Your task to perform on an android device: open app "Google Sheets" Image 0: 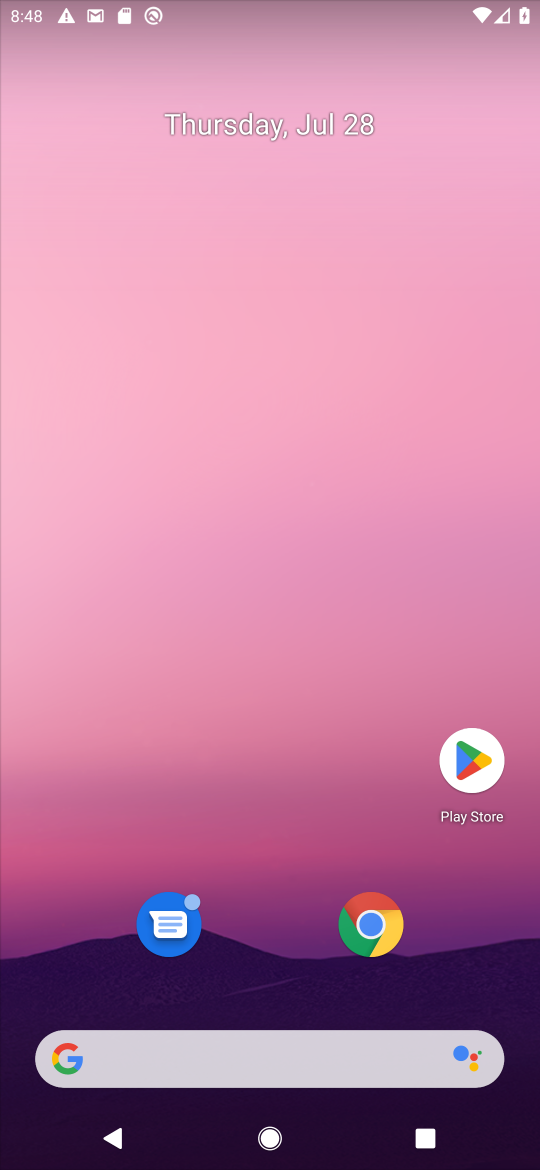
Step 0: press home button
Your task to perform on an android device: open app "Google Sheets" Image 1: 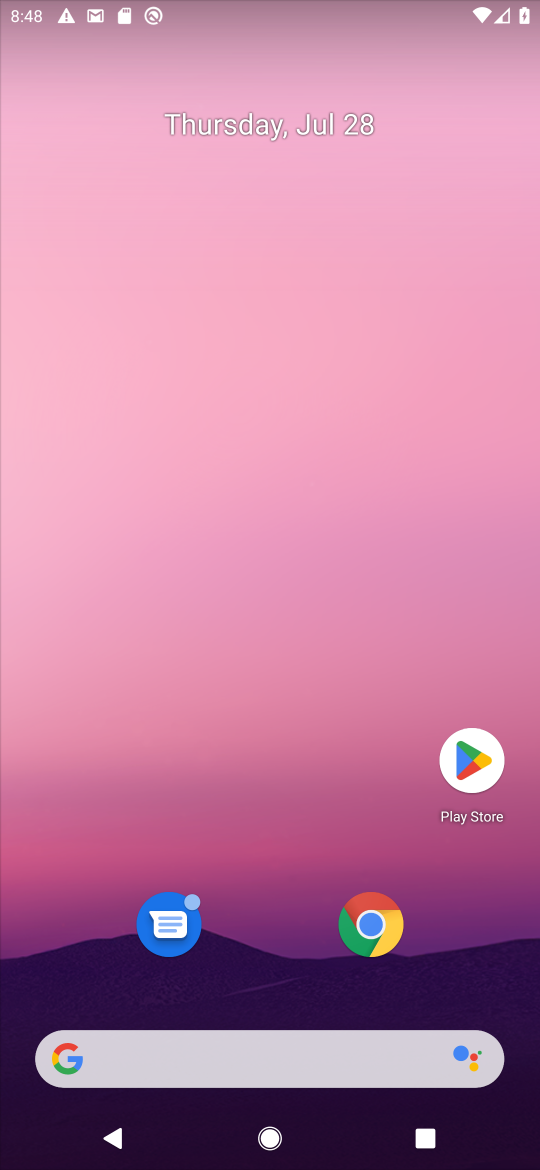
Step 1: click (468, 755)
Your task to perform on an android device: open app "Google Sheets" Image 2: 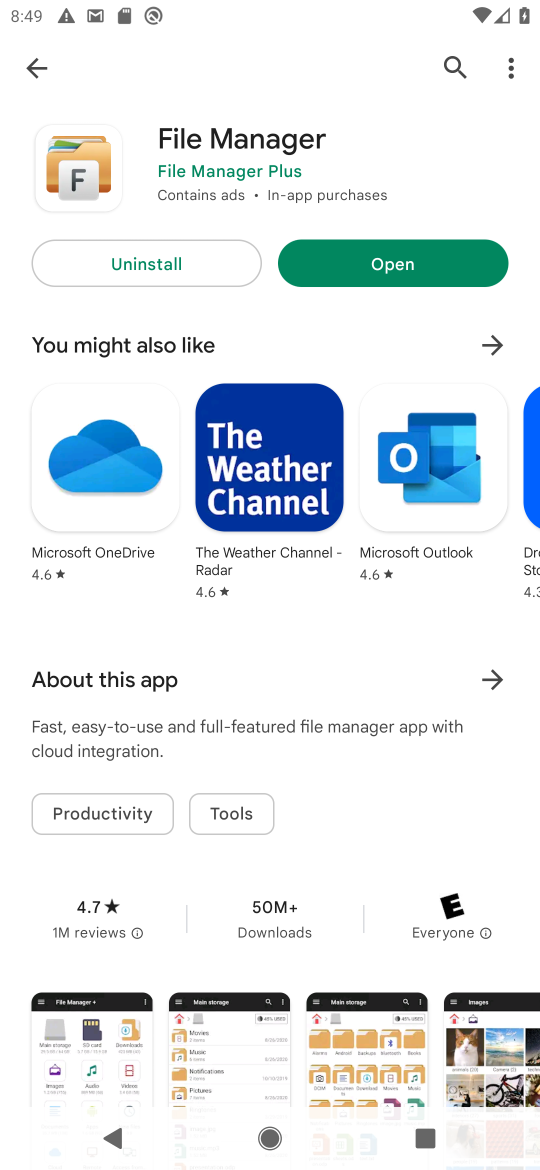
Step 2: click (448, 61)
Your task to perform on an android device: open app "Google Sheets" Image 3: 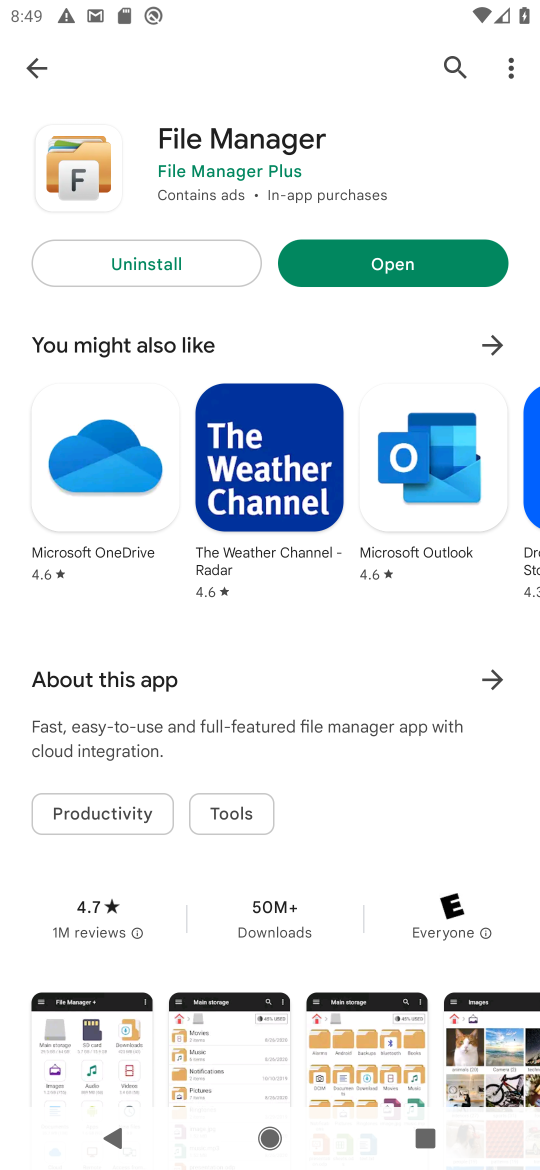
Step 3: click (454, 60)
Your task to perform on an android device: open app "Google Sheets" Image 4: 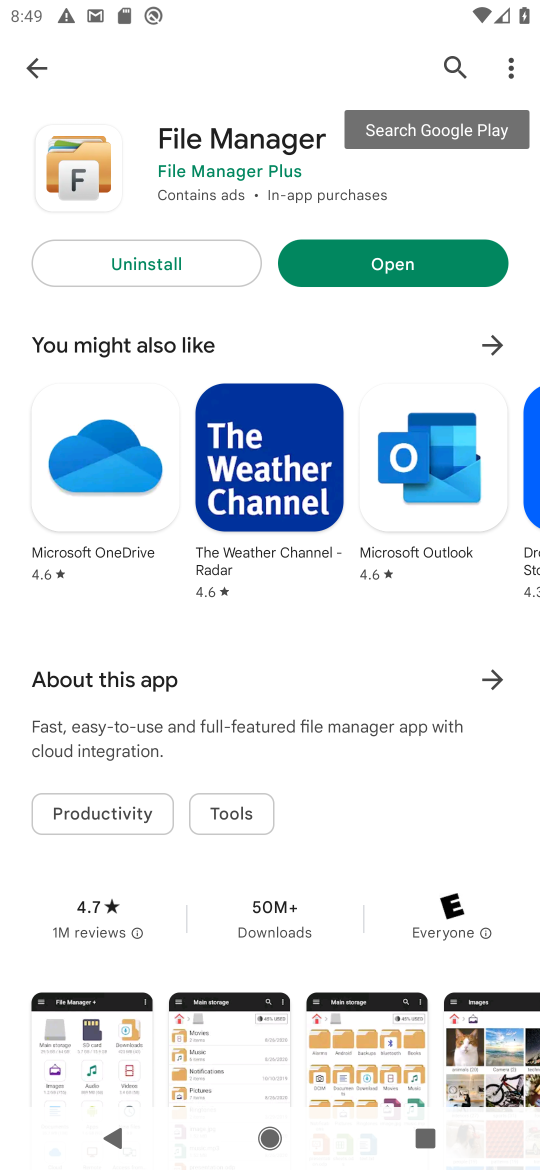
Step 4: click (40, 61)
Your task to perform on an android device: open app "Google Sheets" Image 5: 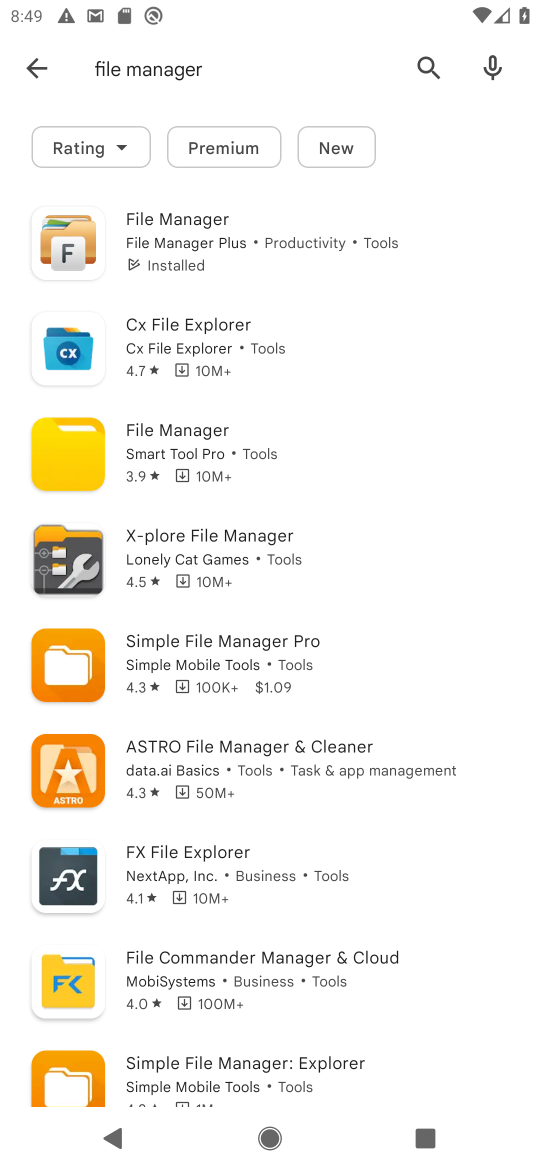
Step 5: click (414, 63)
Your task to perform on an android device: open app "Google Sheets" Image 6: 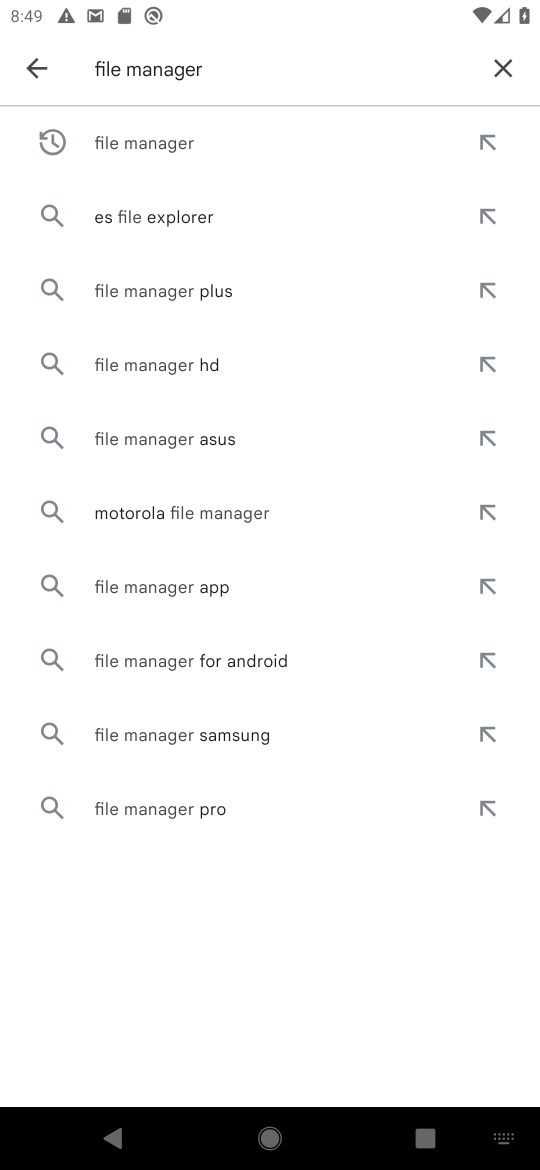
Step 6: click (501, 55)
Your task to perform on an android device: open app "Google Sheets" Image 7: 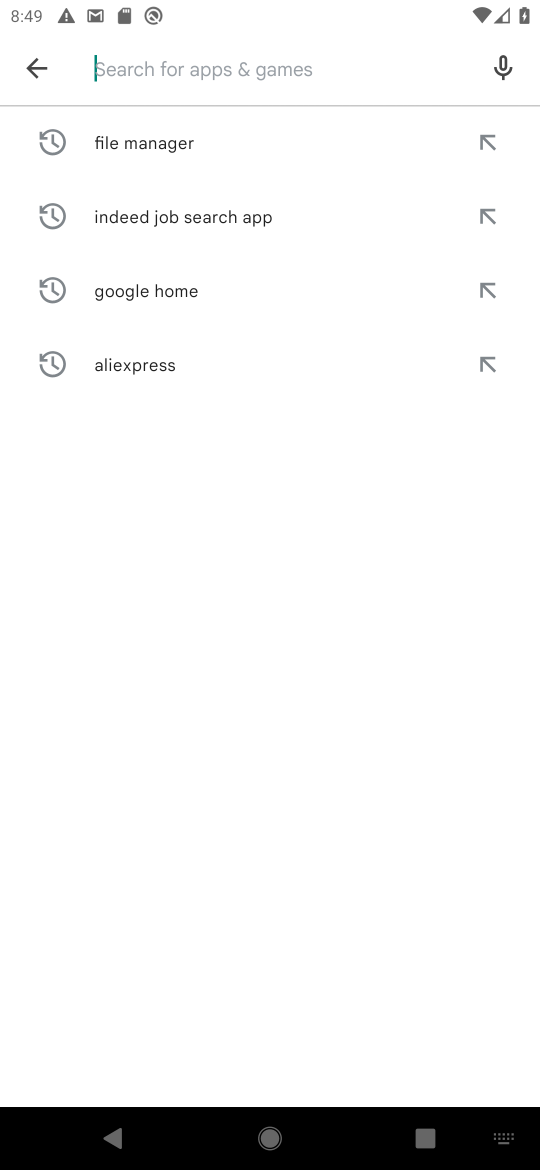
Step 7: type "Google Sheets"
Your task to perform on an android device: open app "Google Sheets" Image 8: 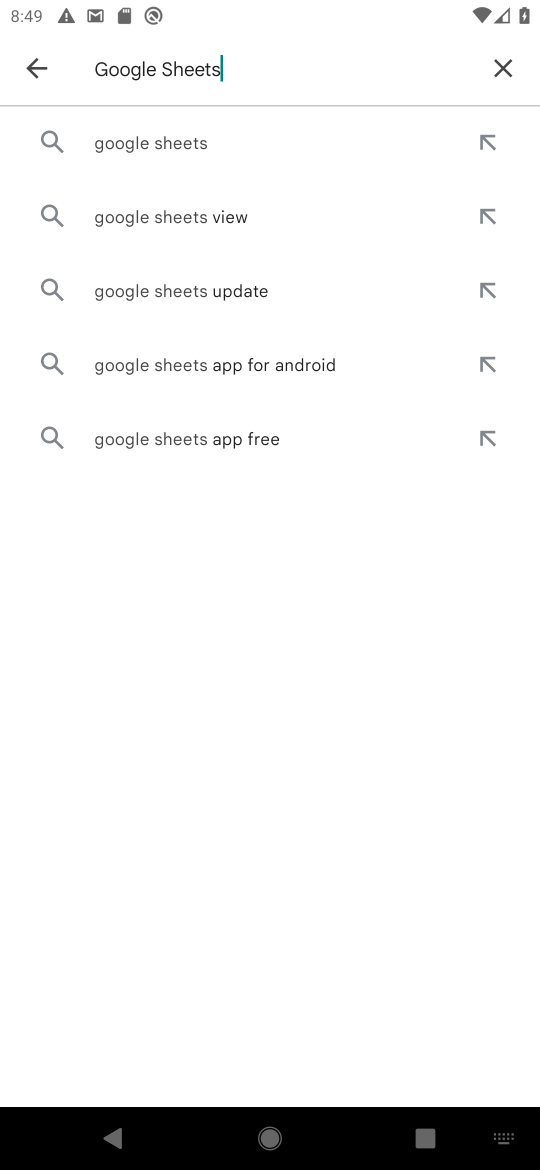
Step 8: click (193, 139)
Your task to perform on an android device: open app "Google Sheets" Image 9: 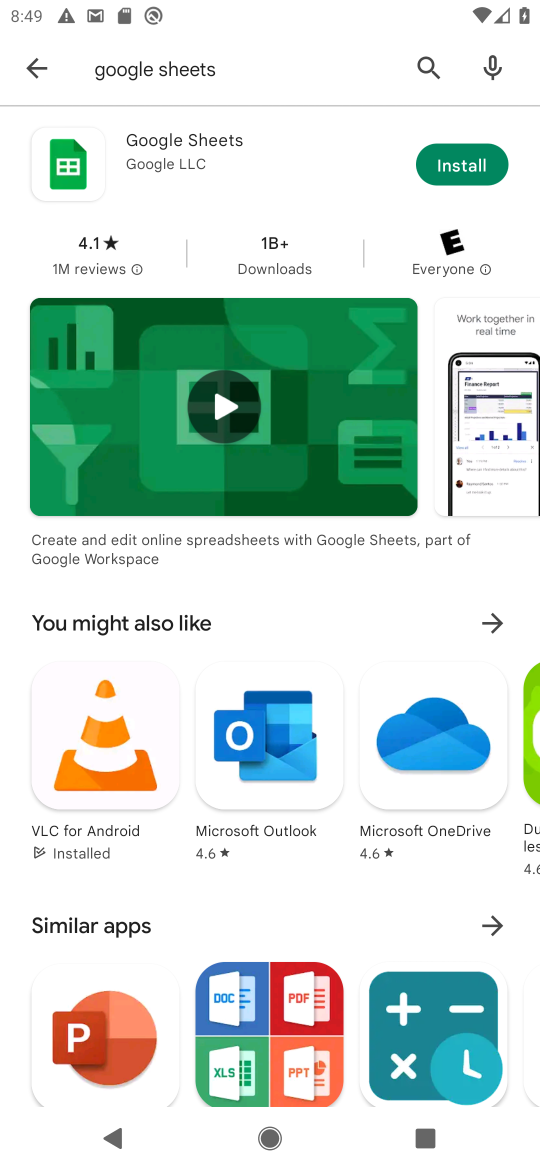
Step 9: task complete